Your task to perform on an android device: read, delete, or share a saved page in the chrome app Image 0: 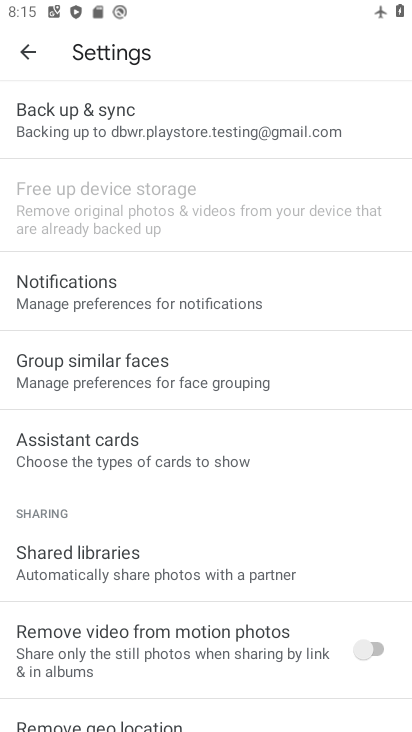
Step 0: press home button
Your task to perform on an android device: read, delete, or share a saved page in the chrome app Image 1: 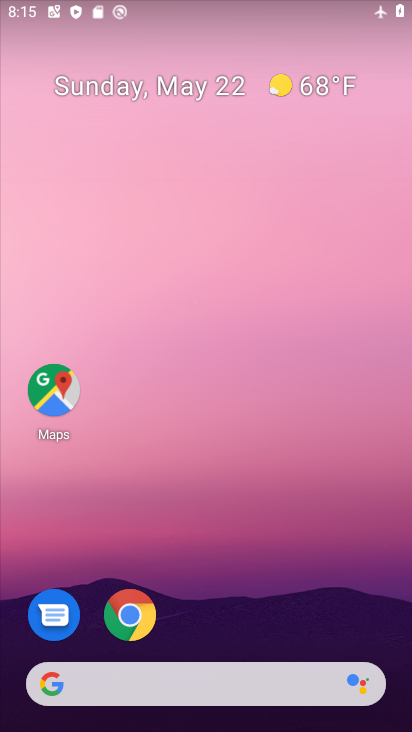
Step 1: click (138, 623)
Your task to perform on an android device: read, delete, or share a saved page in the chrome app Image 2: 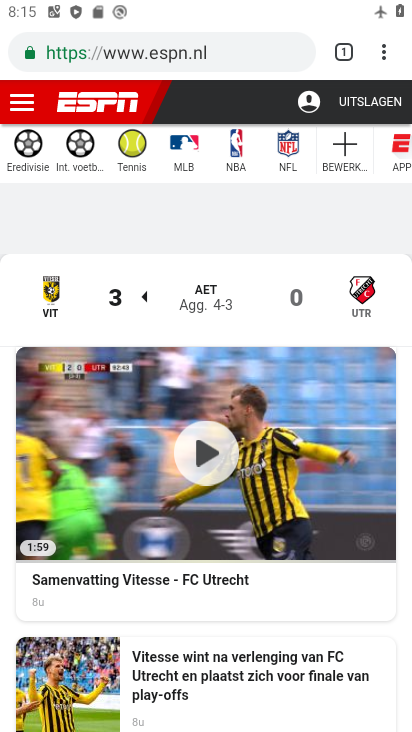
Step 2: click (375, 61)
Your task to perform on an android device: read, delete, or share a saved page in the chrome app Image 3: 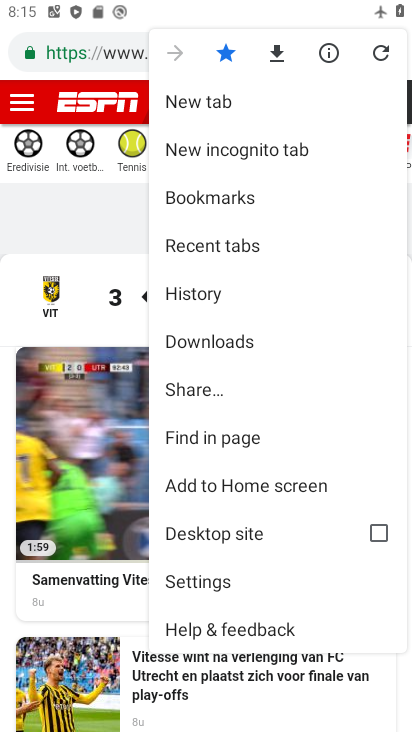
Step 3: click (187, 335)
Your task to perform on an android device: read, delete, or share a saved page in the chrome app Image 4: 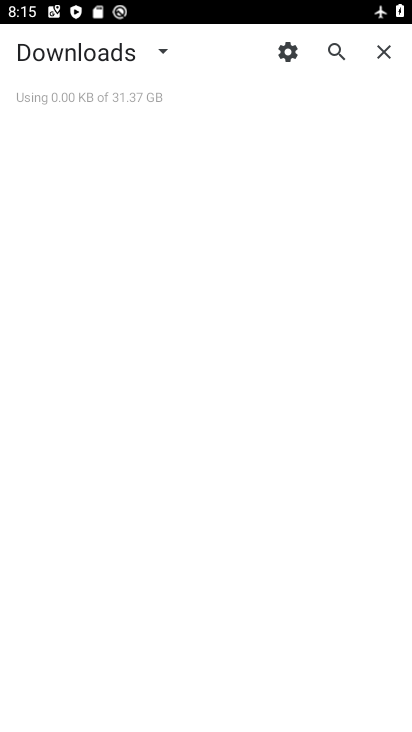
Step 4: task complete